Your task to perform on an android device: Go to sound settings Image 0: 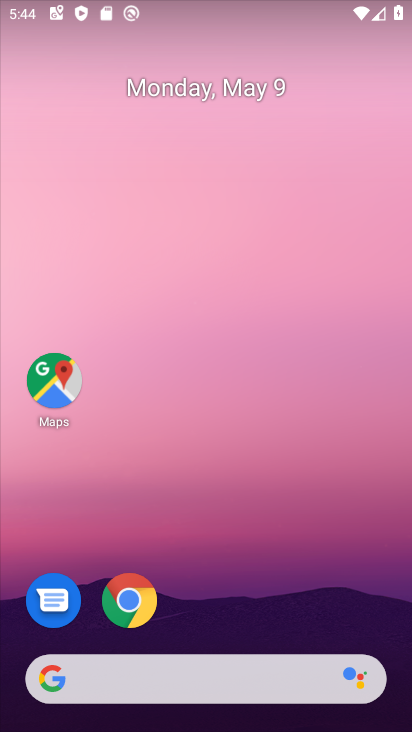
Step 0: drag from (225, 591) to (273, 88)
Your task to perform on an android device: Go to sound settings Image 1: 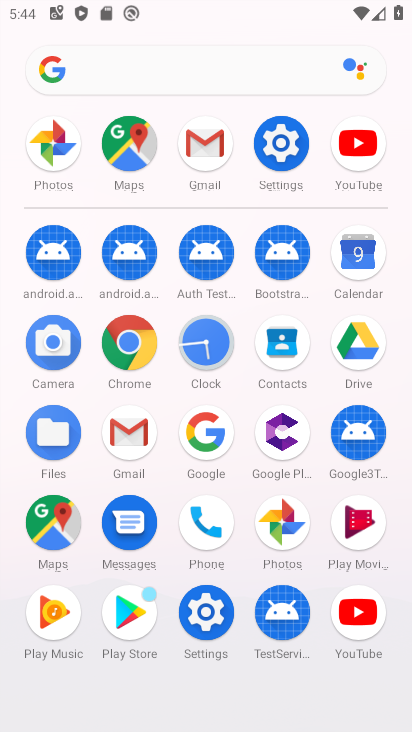
Step 1: click (272, 160)
Your task to perform on an android device: Go to sound settings Image 2: 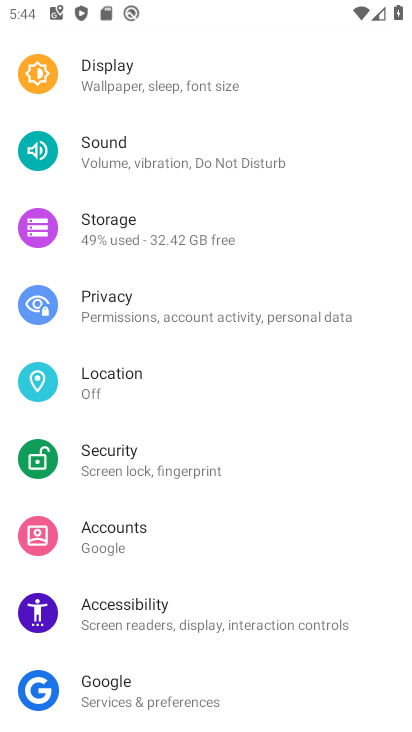
Step 2: click (163, 176)
Your task to perform on an android device: Go to sound settings Image 3: 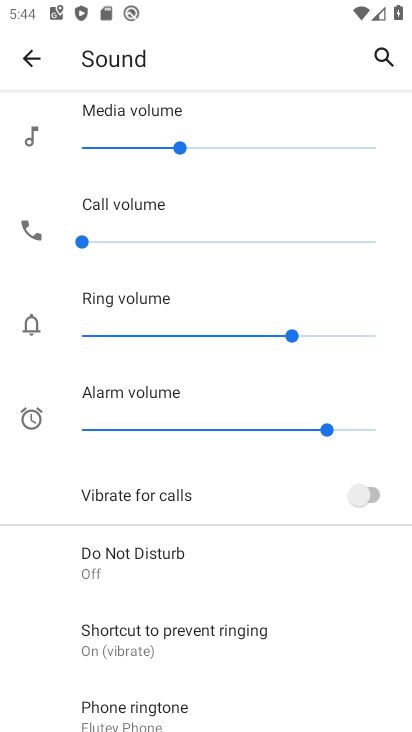
Step 3: task complete